Your task to perform on an android device: turn off location Image 0: 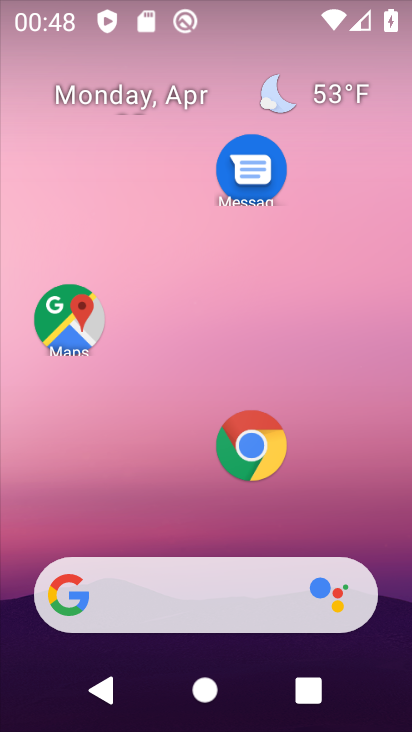
Step 0: drag from (150, 524) to (224, 30)
Your task to perform on an android device: turn off location Image 1: 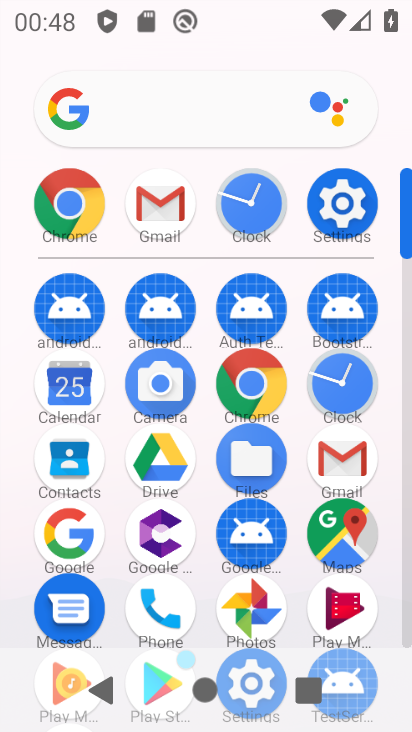
Step 1: click (337, 215)
Your task to perform on an android device: turn off location Image 2: 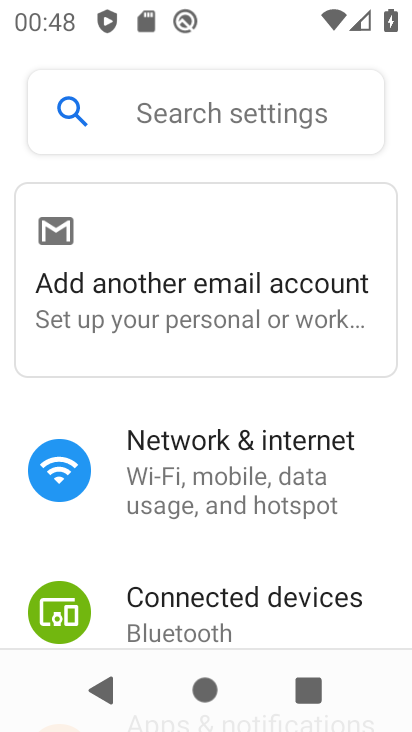
Step 2: drag from (241, 471) to (310, 113)
Your task to perform on an android device: turn off location Image 3: 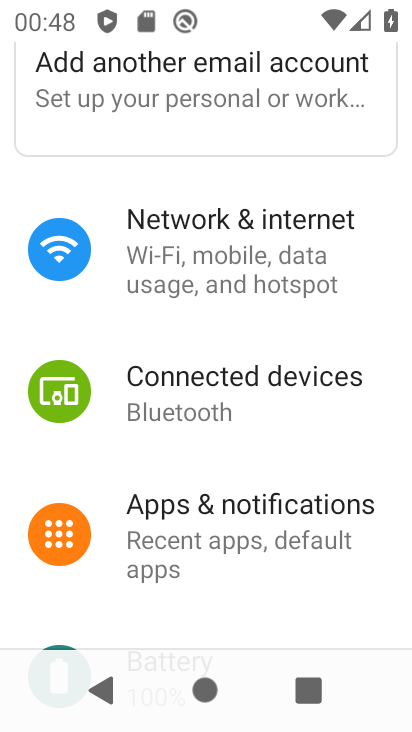
Step 3: drag from (243, 527) to (296, 134)
Your task to perform on an android device: turn off location Image 4: 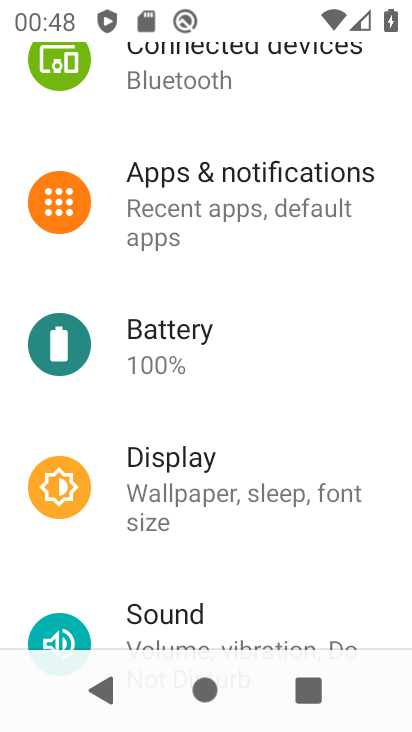
Step 4: drag from (198, 562) to (251, 120)
Your task to perform on an android device: turn off location Image 5: 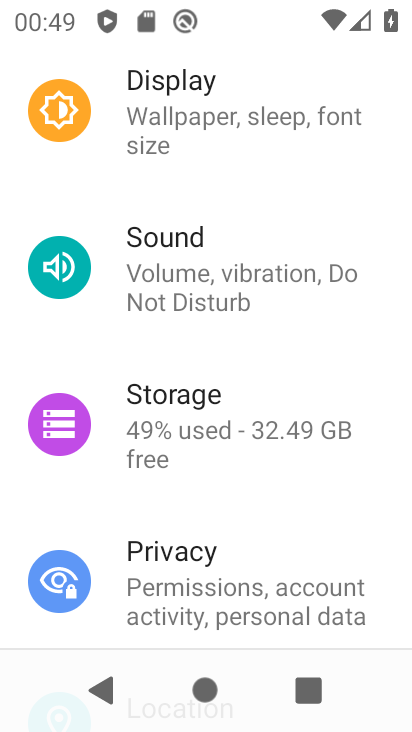
Step 5: drag from (171, 561) to (233, 135)
Your task to perform on an android device: turn off location Image 6: 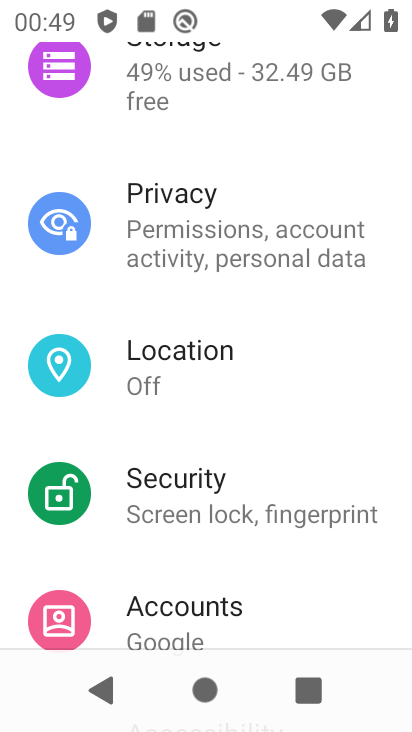
Step 6: click (182, 359)
Your task to perform on an android device: turn off location Image 7: 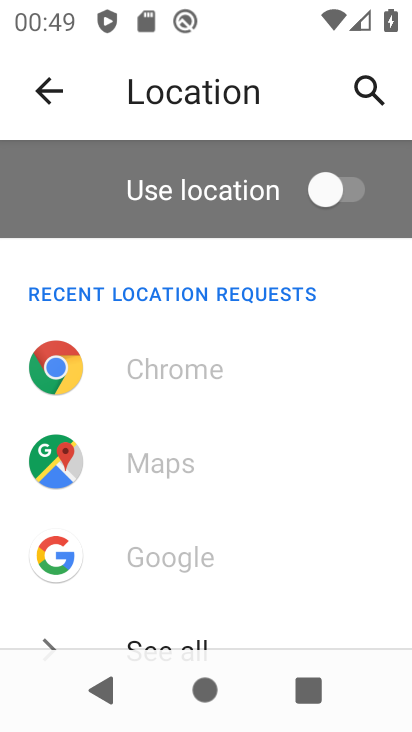
Step 7: task complete